Your task to perform on an android device: toggle pop-ups in chrome Image 0: 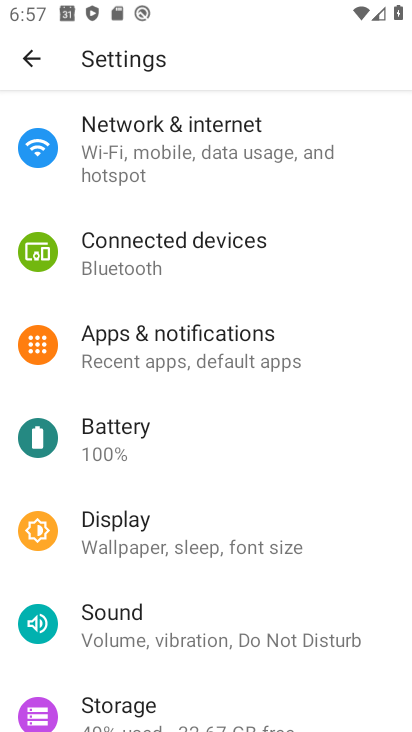
Step 0: press back button
Your task to perform on an android device: toggle pop-ups in chrome Image 1: 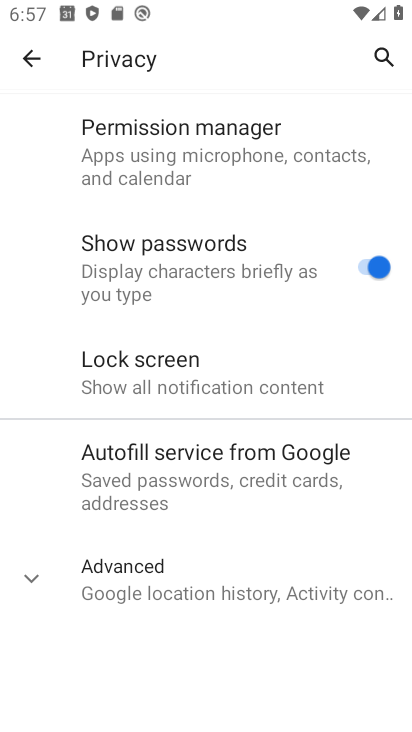
Step 1: press back button
Your task to perform on an android device: toggle pop-ups in chrome Image 2: 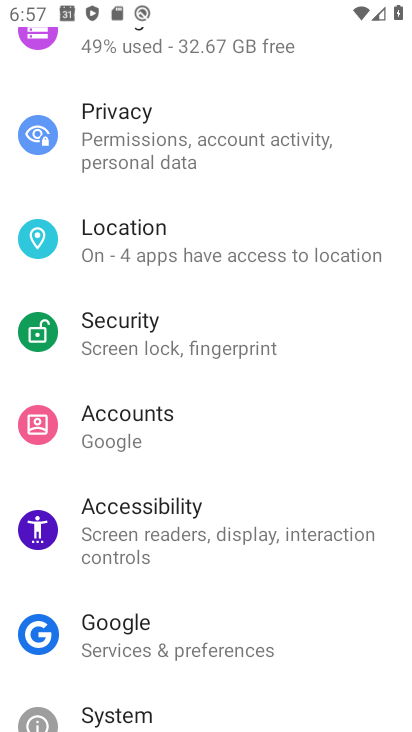
Step 2: press back button
Your task to perform on an android device: toggle pop-ups in chrome Image 3: 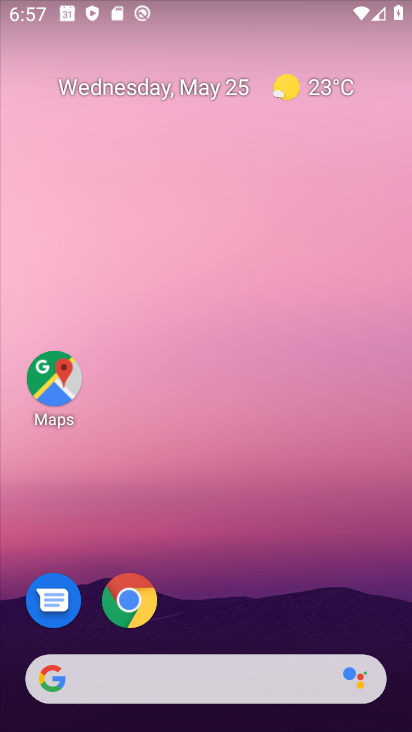
Step 3: click (131, 601)
Your task to perform on an android device: toggle pop-ups in chrome Image 4: 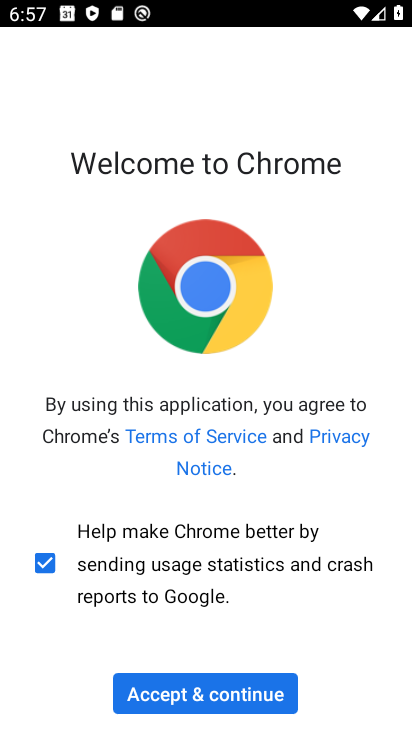
Step 4: click (176, 695)
Your task to perform on an android device: toggle pop-ups in chrome Image 5: 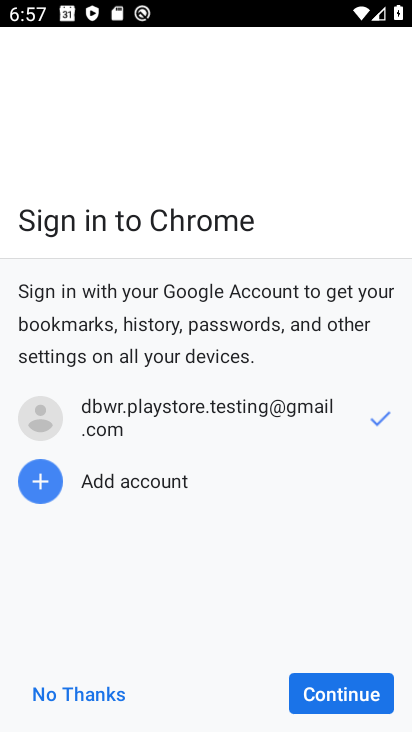
Step 5: click (345, 694)
Your task to perform on an android device: toggle pop-ups in chrome Image 6: 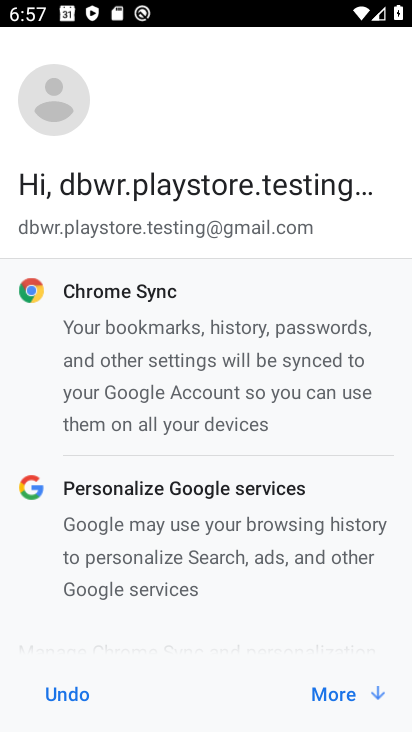
Step 6: click (345, 694)
Your task to perform on an android device: toggle pop-ups in chrome Image 7: 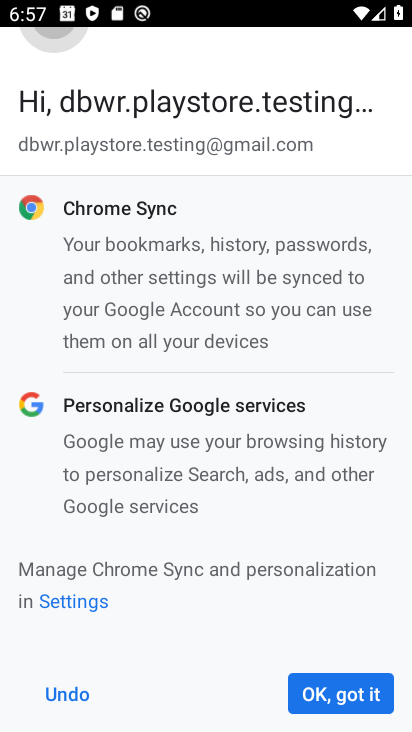
Step 7: click (345, 694)
Your task to perform on an android device: toggle pop-ups in chrome Image 8: 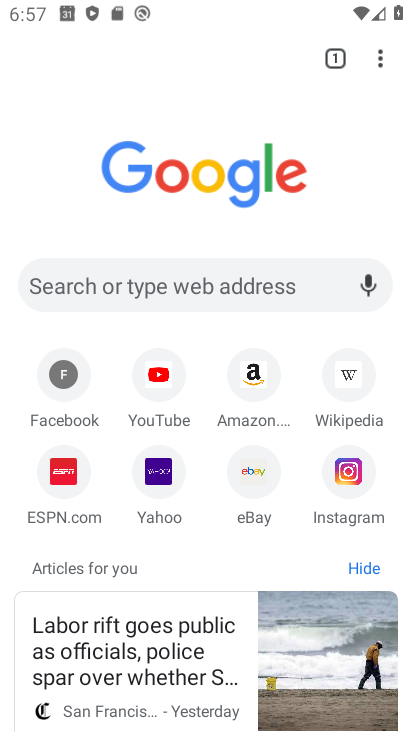
Step 8: click (383, 57)
Your task to perform on an android device: toggle pop-ups in chrome Image 9: 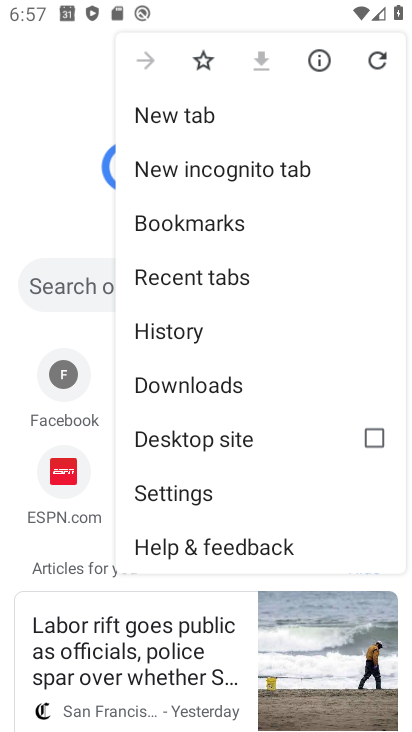
Step 9: click (177, 492)
Your task to perform on an android device: toggle pop-ups in chrome Image 10: 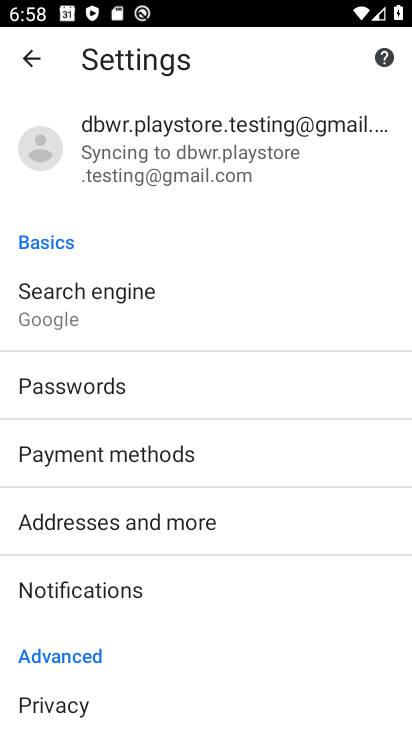
Step 10: drag from (141, 626) to (199, 513)
Your task to perform on an android device: toggle pop-ups in chrome Image 11: 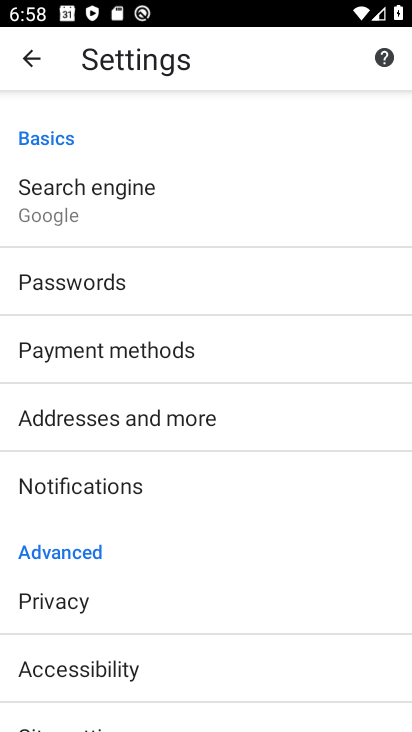
Step 11: drag from (144, 626) to (204, 502)
Your task to perform on an android device: toggle pop-ups in chrome Image 12: 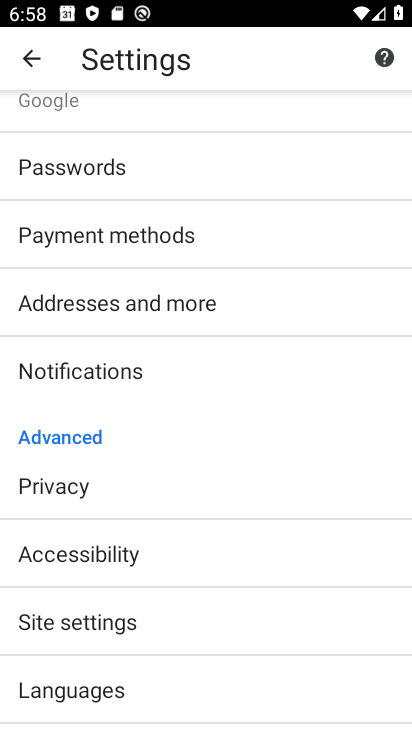
Step 12: click (73, 621)
Your task to perform on an android device: toggle pop-ups in chrome Image 13: 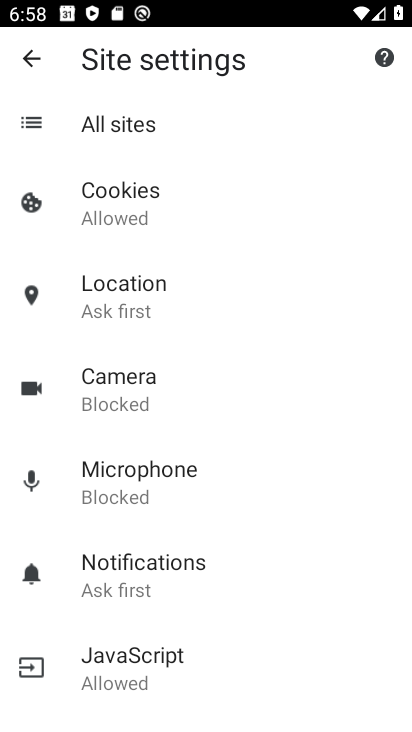
Step 13: drag from (166, 610) to (204, 502)
Your task to perform on an android device: toggle pop-ups in chrome Image 14: 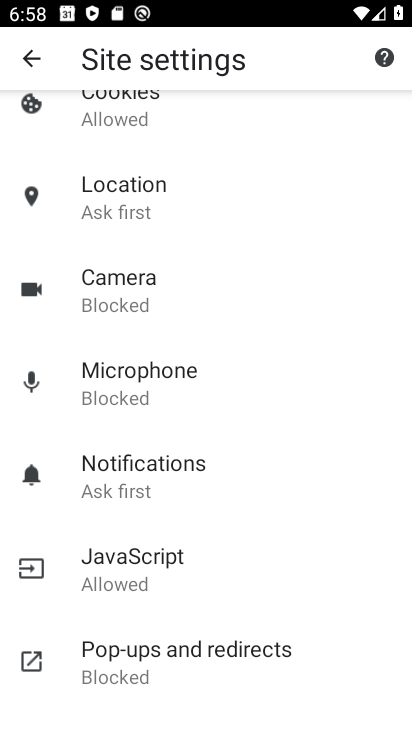
Step 14: drag from (189, 607) to (251, 512)
Your task to perform on an android device: toggle pop-ups in chrome Image 15: 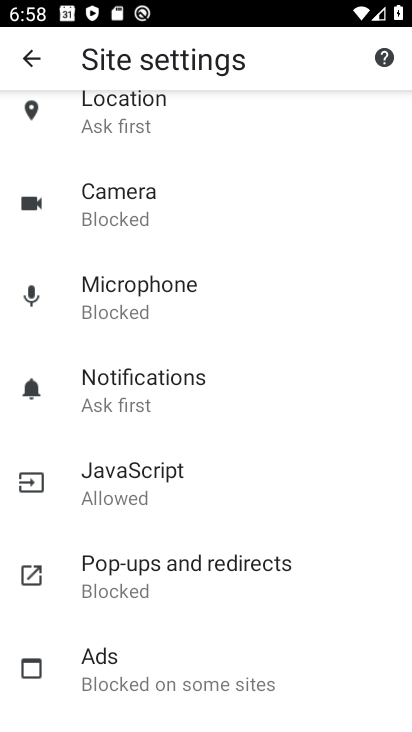
Step 15: click (184, 571)
Your task to perform on an android device: toggle pop-ups in chrome Image 16: 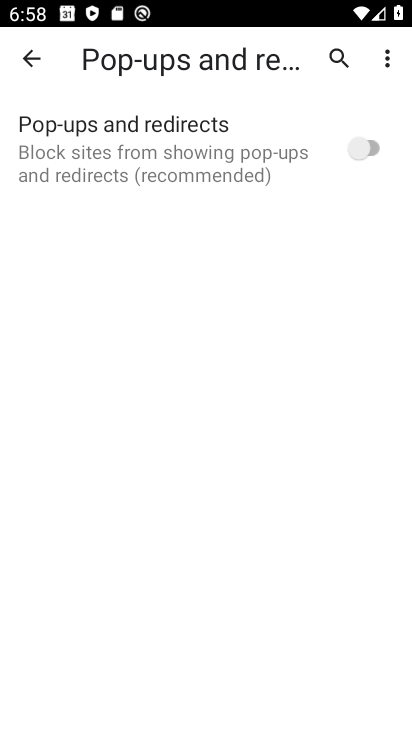
Step 16: click (359, 154)
Your task to perform on an android device: toggle pop-ups in chrome Image 17: 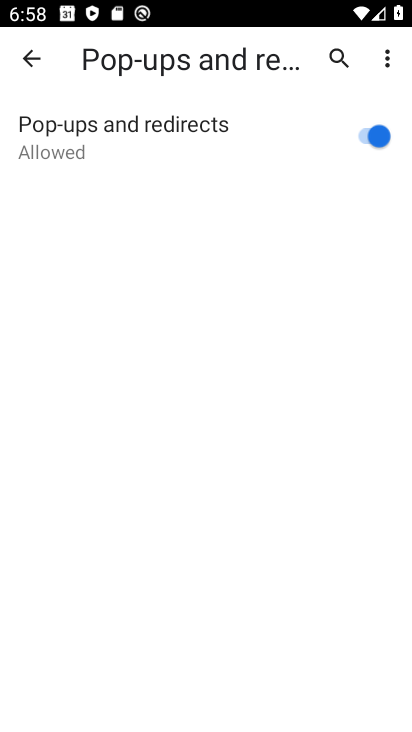
Step 17: task complete